Your task to perform on an android device: check battery use Image 0: 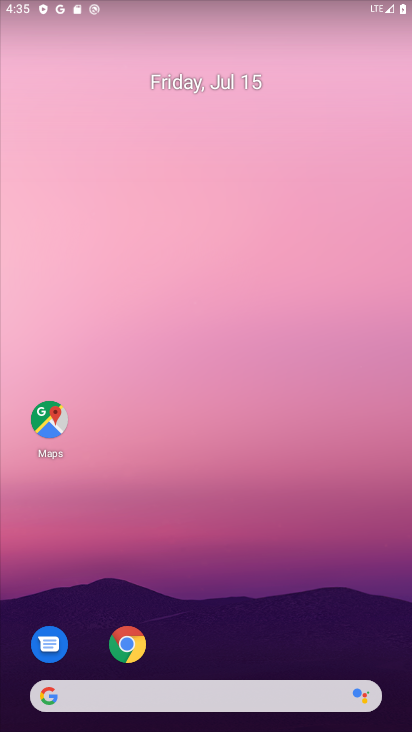
Step 0: drag from (223, 651) to (139, 209)
Your task to perform on an android device: check battery use Image 1: 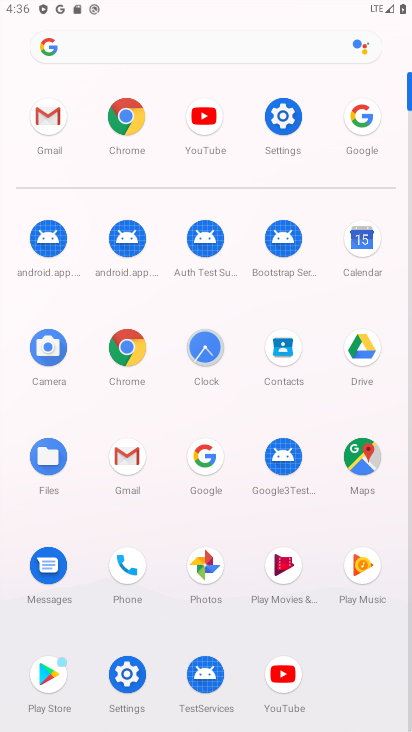
Step 1: click (285, 117)
Your task to perform on an android device: check battery use Image 2: 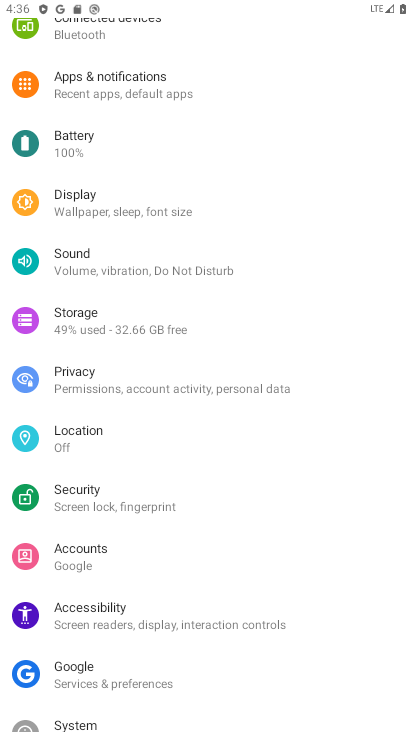
Step 2: click (98, 128)
Your task to perform on an android device: check battery use Image 3: 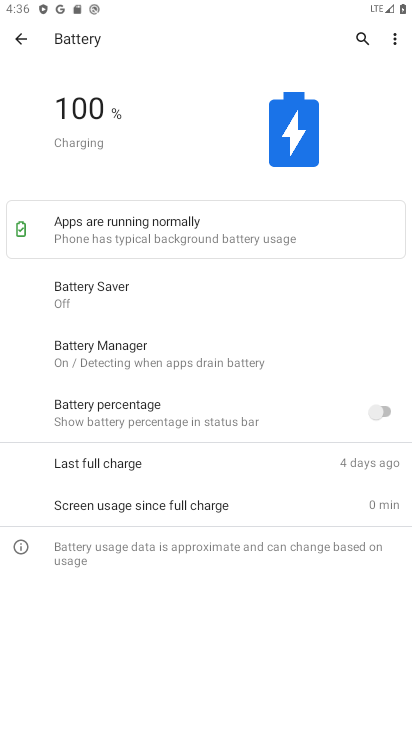
Step 3: click (392, 38)
Your task to perform on an android device: check battery use Image 4: 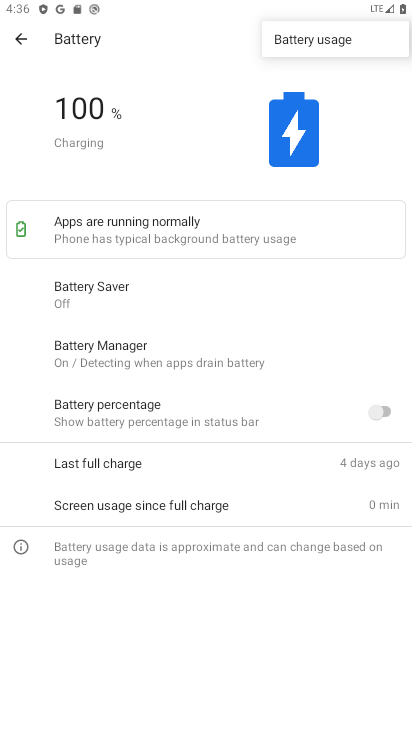
Step 4: click (361, 37)
Your task to perform on an android device: check battery use Image 5: 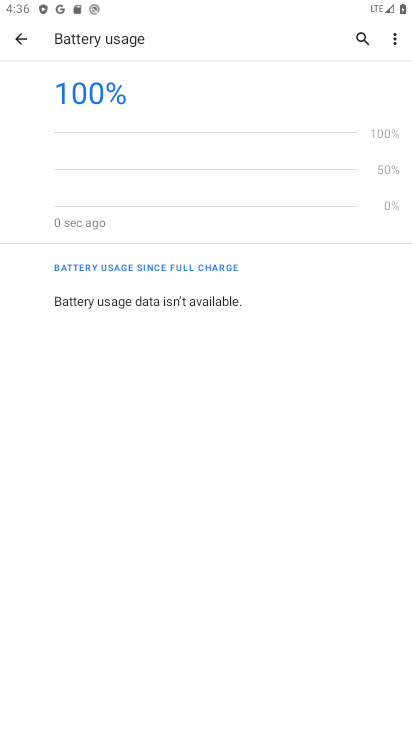
Step 5: task complete